Your task to perform on an android device: turn off wifi Image 0: 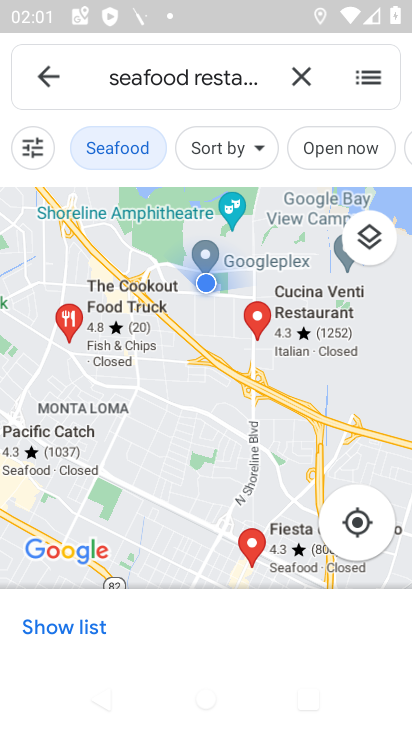
Step 0: press home button
Your task to perform on an android device: turn off wifi Image 1: 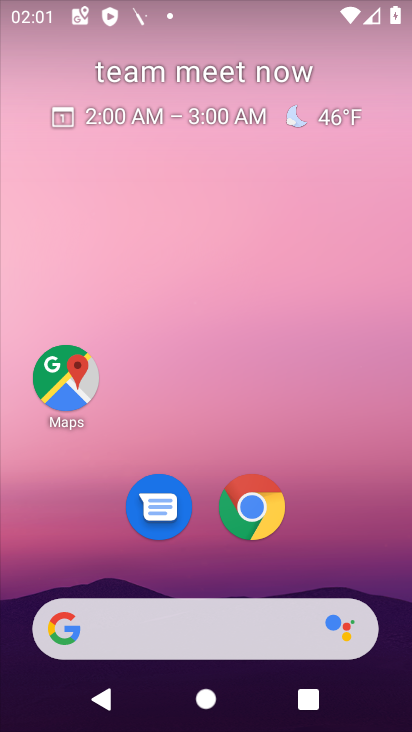
Step 1: drag from (243, 662) to (212, 278)
Your task to perform on an android device: turn off wifi Image 2: 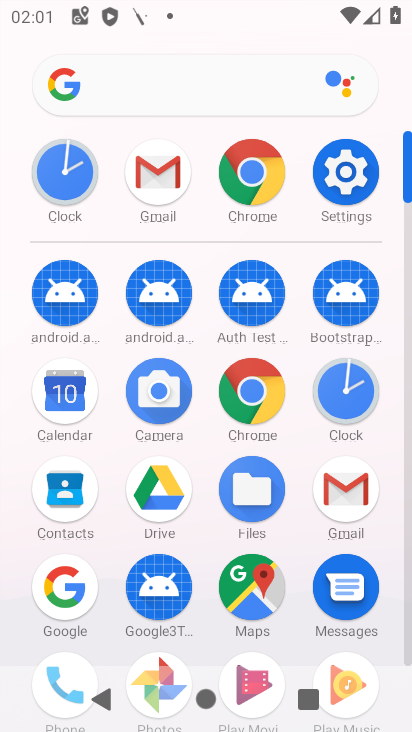
Step 2: click (358, 184)
Your task to perform on an android device: turn off wifi Image 3: 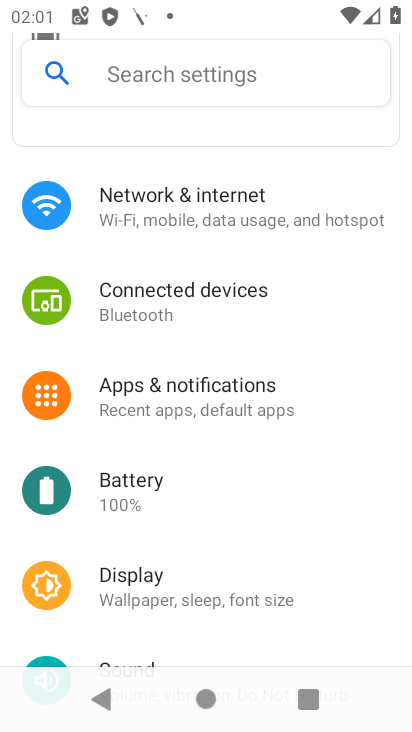
Step 3: click (228, 204)
Your task to perform on an android device: turn off wifi Image 4: 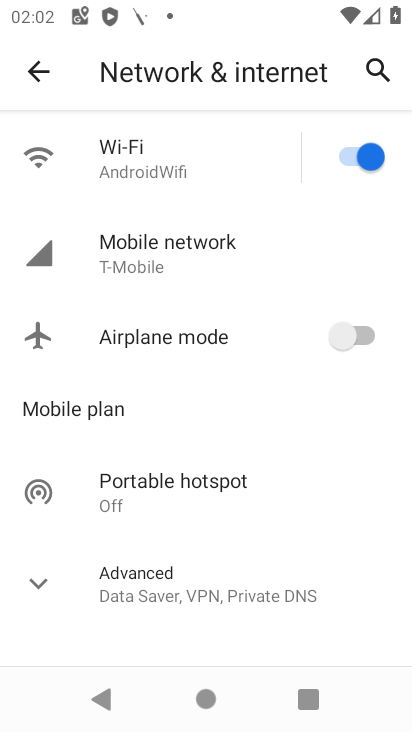
Step 4: click (184, 166)
Your task to perform on an android device: turn off wifi Image 5: 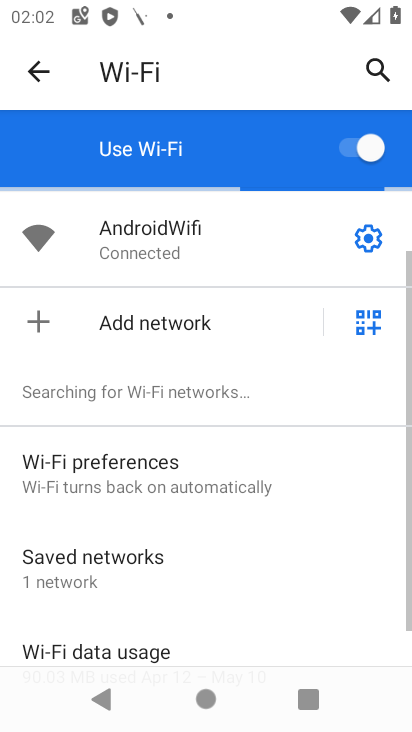
Step 5: click (337, 170)
Your task to perform on an android device: turn off wifi Image 6: 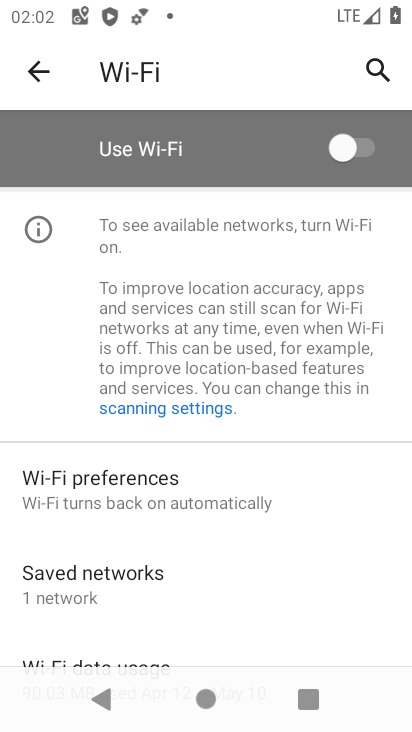
Step 6: task complete